Your task to perform on an android device: See recent photos Image 0: 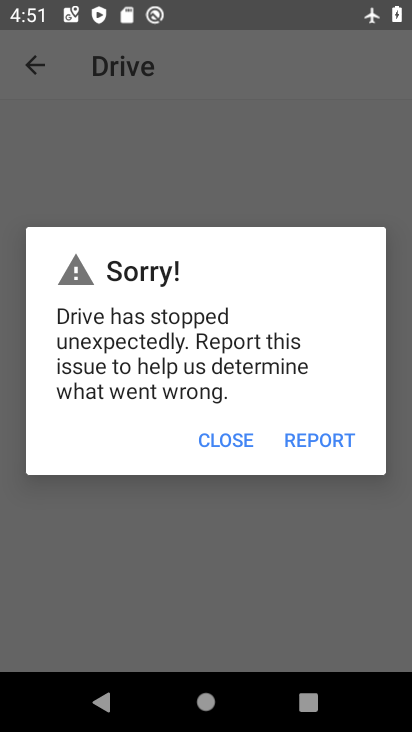
Step 0: press home button
Your task to perform on an android device: See recent photos Image 1: 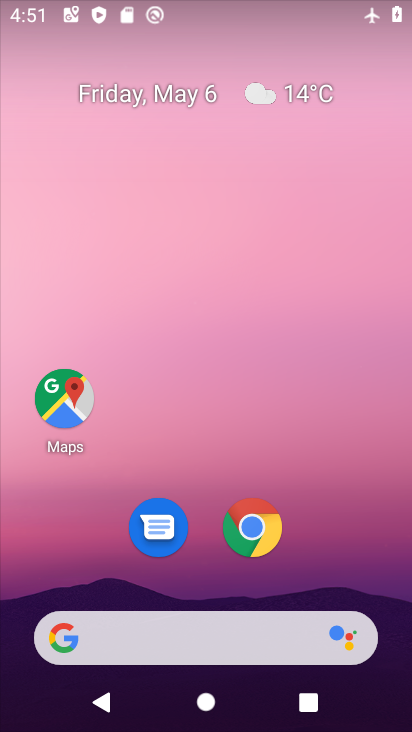
Step 1: drag from (222, 725) to (226, 201)
Your task to perform on an android device: See recent photos Image 2: 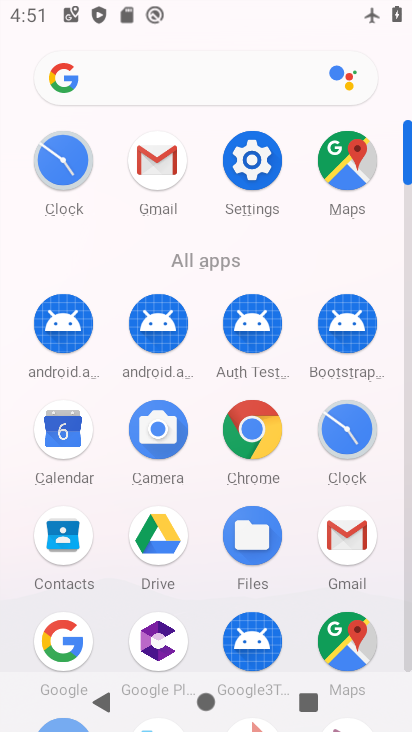
Step 2: drag from (210, 608) to (213, 237)
Your task to perform on an android device: See recent photos Image 3: 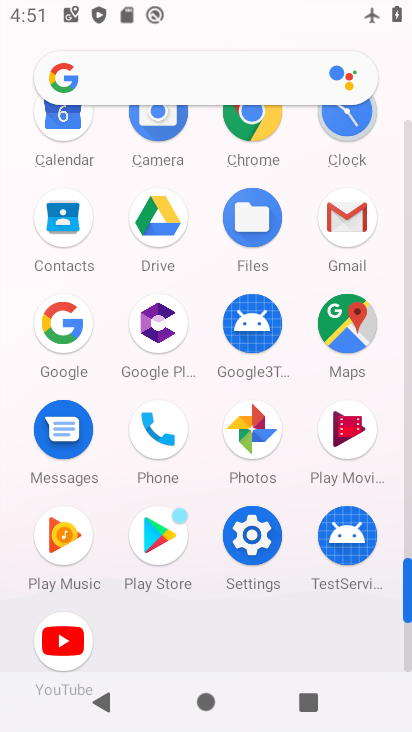
Step 3: click (258, 420)
Your task to perform on an android device: See recent photos Image 4: 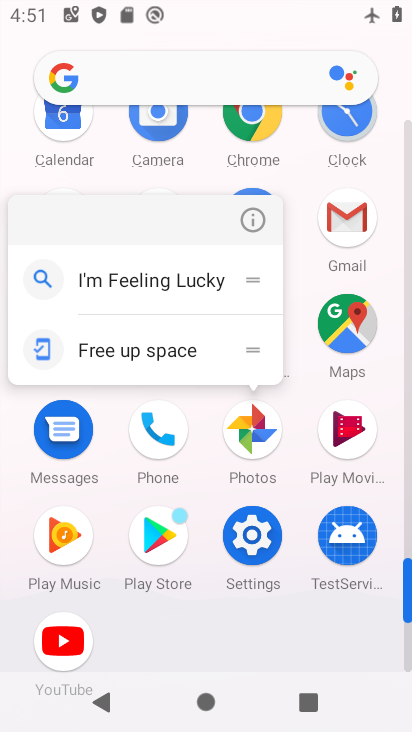
Step 4: click (248, 422)
Your task to perform on an android device: See recent photos Image 5: 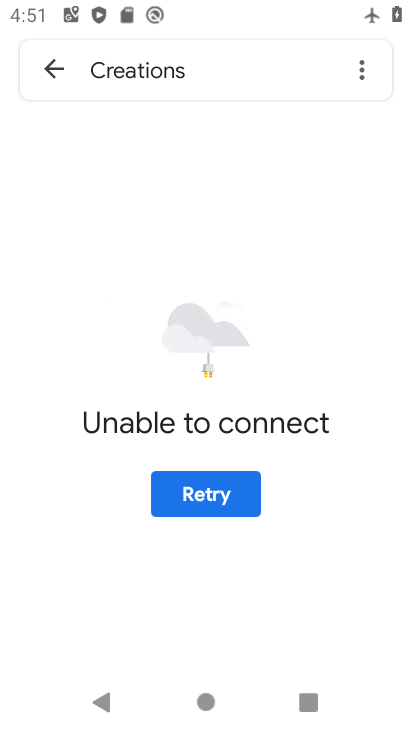
Step 5: task complete